Your task to perform on an android device: set an alarm Image 0: 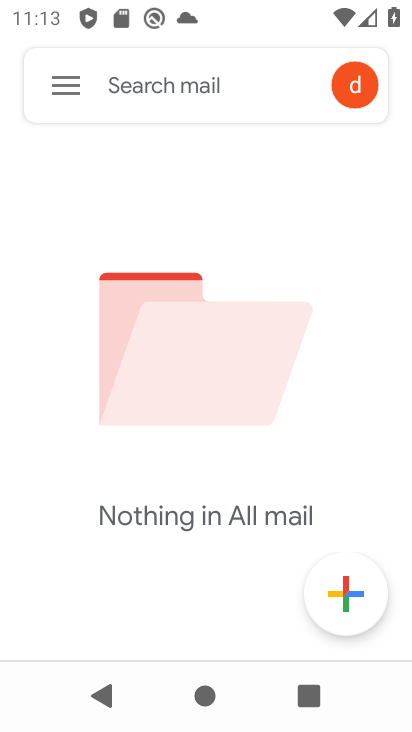
Step 0: press back button
Your task to perform on an android device: set an alarm Image 1: 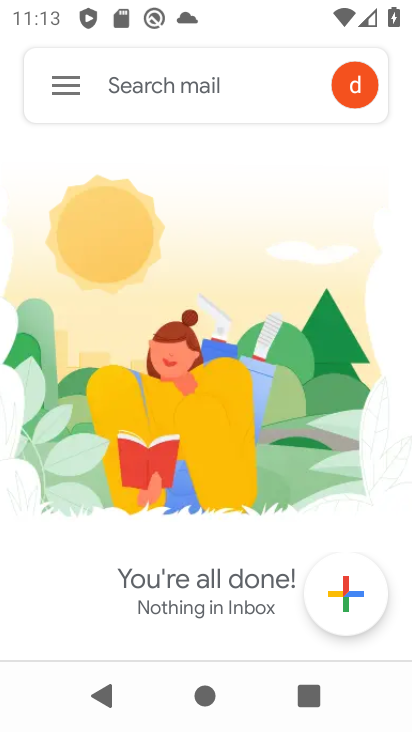
Step 1: press back button
Your task to perform on an android device: set an alarm Image 2: 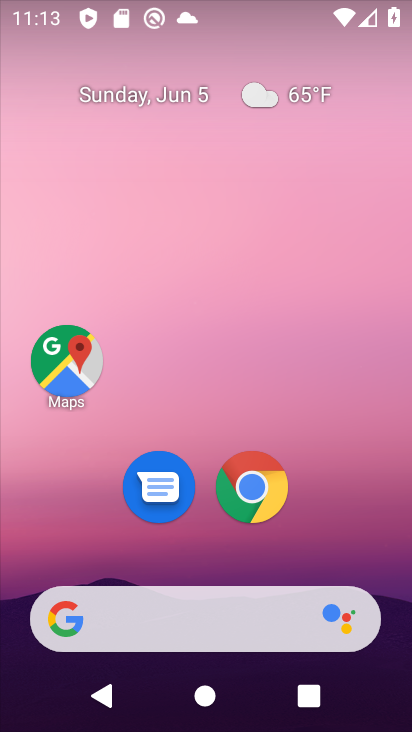
Step 2: drag from (335, 544) to (219, 52)
Your task to perform on an android device: set an alarm Image 3: 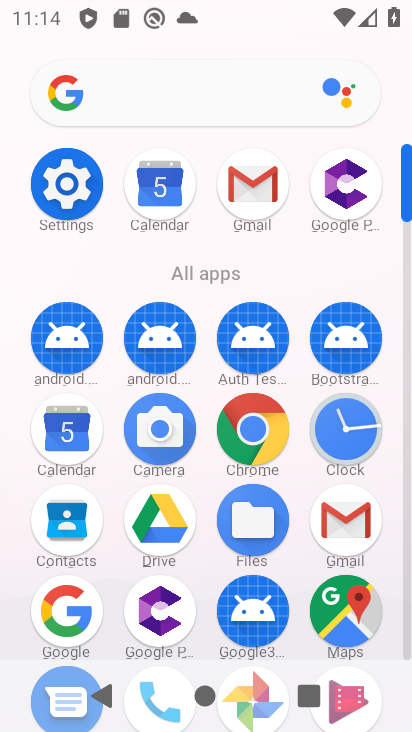
Step 3: click (344, 428)
Your task to perform on an android device: set an alarm Image 4: 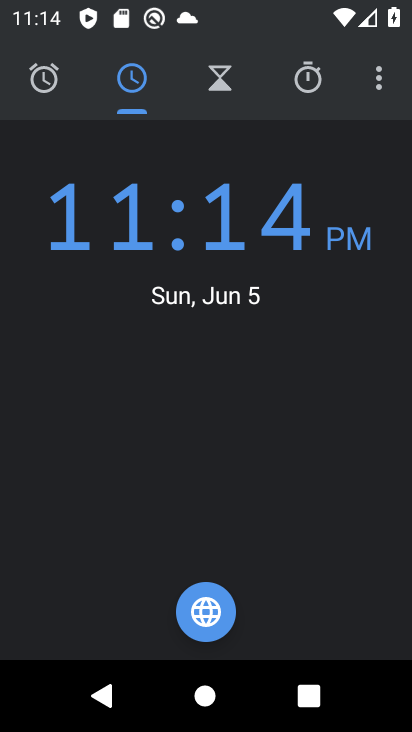
Step 4: click (44, 78)
Your task to perform on an android device: set an alarm Image 5: 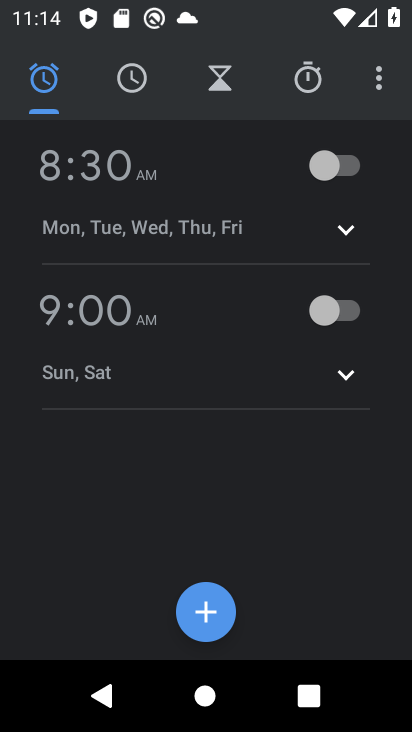
Step 5: click (205, 612)
Your task to perform on an android device: set an alarm Image 6: 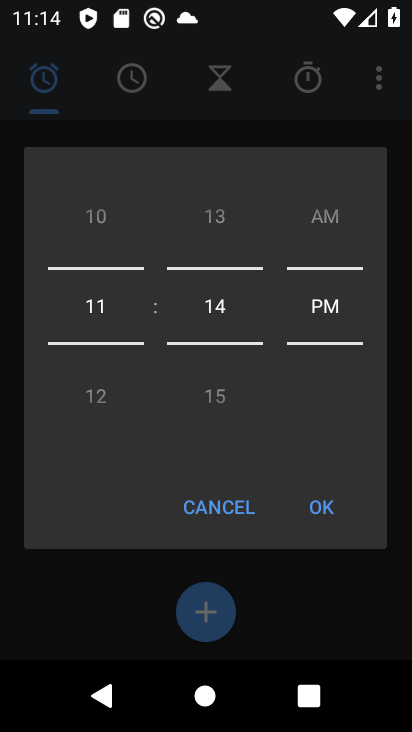
Step 6: click (99, 224)
Your task to perform on an android device: set an alarm Image 7: 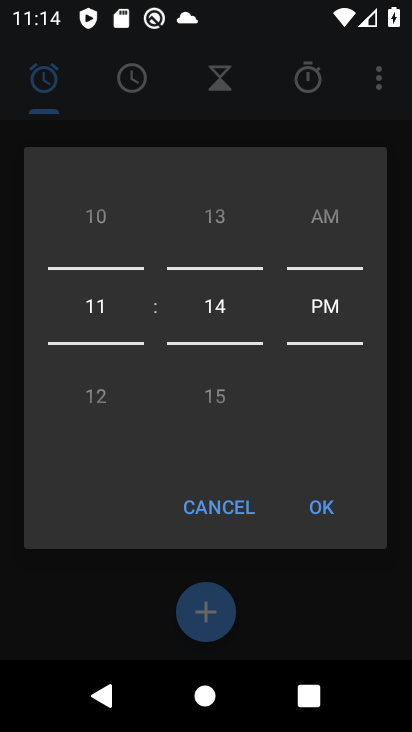
Step 7: click (99, 224)
Your task to perform on an android device: set an alarm Image 8: 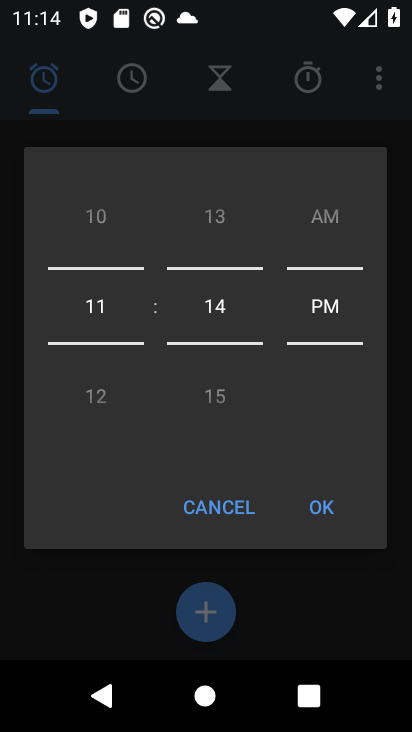
Step 8: click (106, 406)
Your task to perform on an android device: set an alarm Image 9: 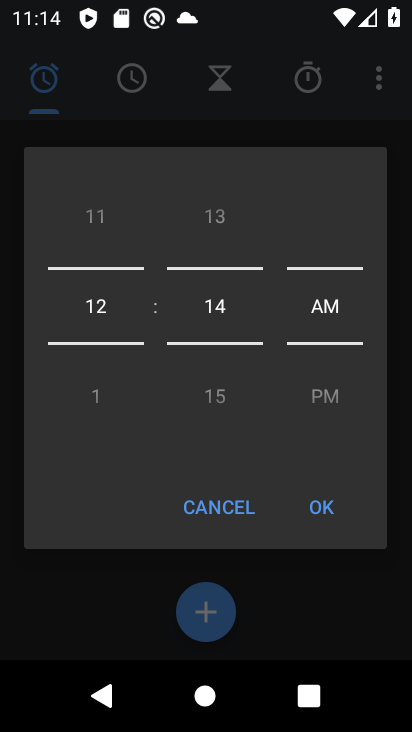
Step 9: drag from (114, 219) to (100, 358)
Your task to perform on an android device: set an alarm Image 10: 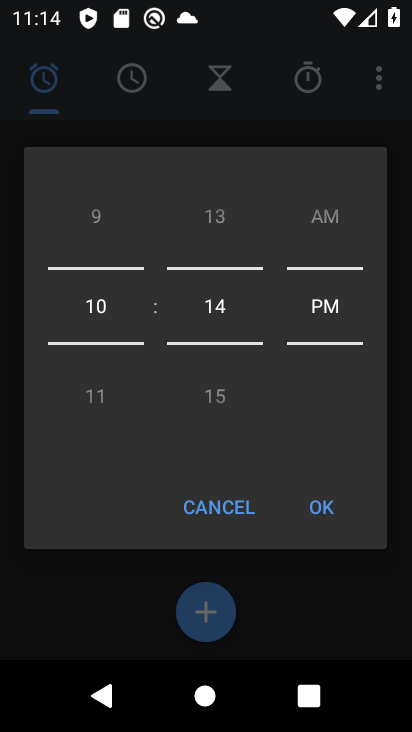
Step 10: drag from (98, 220) to (103, 346)
Your task to perform on an android device: set an alarm Image 11: 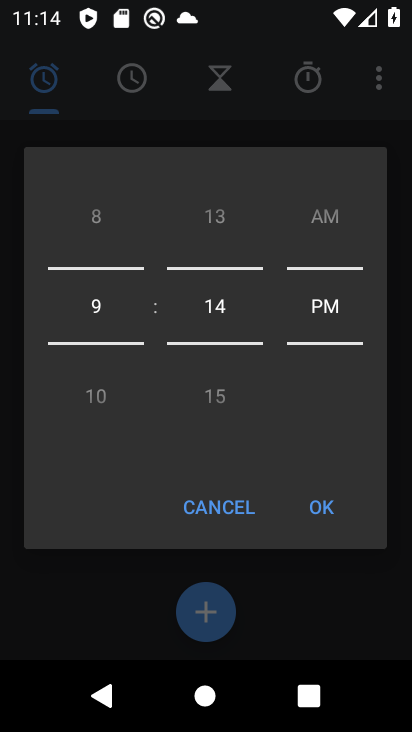
Step 11: drag from (99, 220) to (110, 342)
Your task to perform on an android device: set an alarm Image 12: 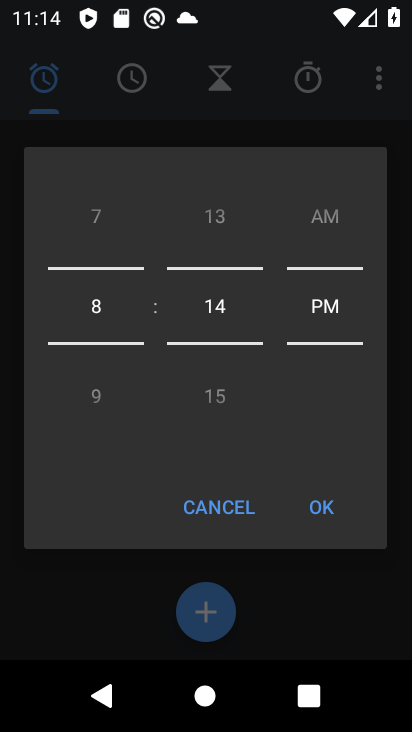
Step 12: drag from (99, 219) to (129, 349)
Your task to perform on an android device: set an alarm Image 13: 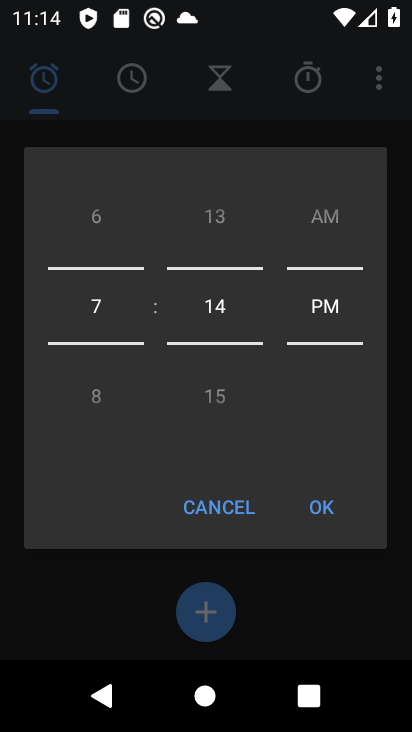
Step 13: drag from (99, 228) to (112, 372)
Your task to perform on an android device: set an alarm Image 14: 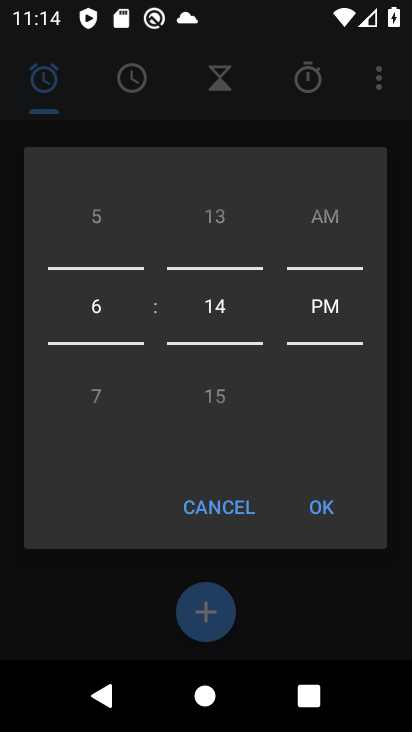
Step 14: drag from (111, 219) to (88, 392)
Your task to perform on an android device: set an alarm Image 15: 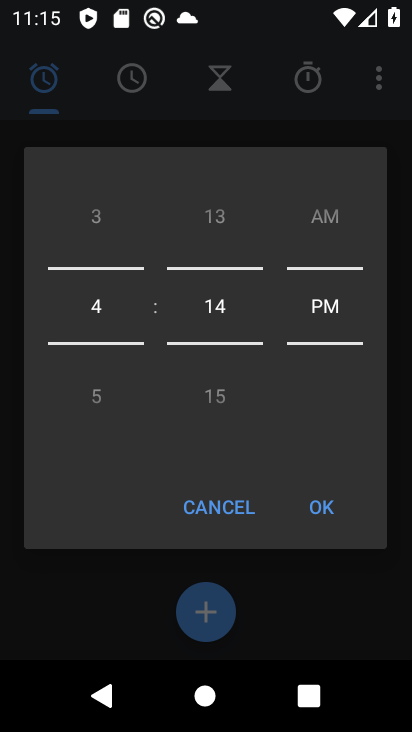
Step 15: drag from (242, 230) to (231, 360)
Your task to perform on an android device: set an alarm Image 16: 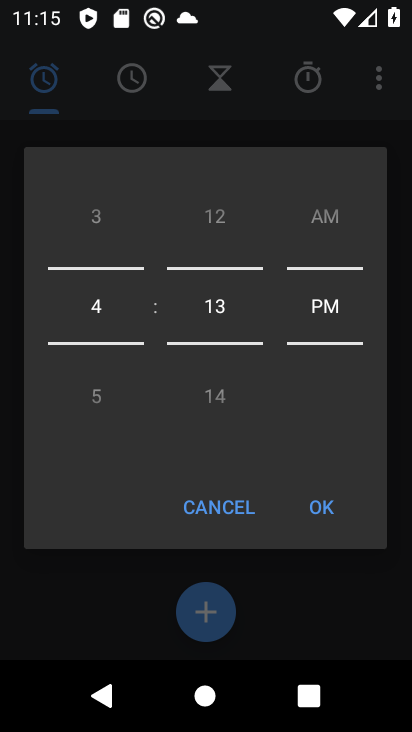
Step 16: drag from (226, 222) to (213, 364)
Your task to perform on an android device: set an alarm Image 17: 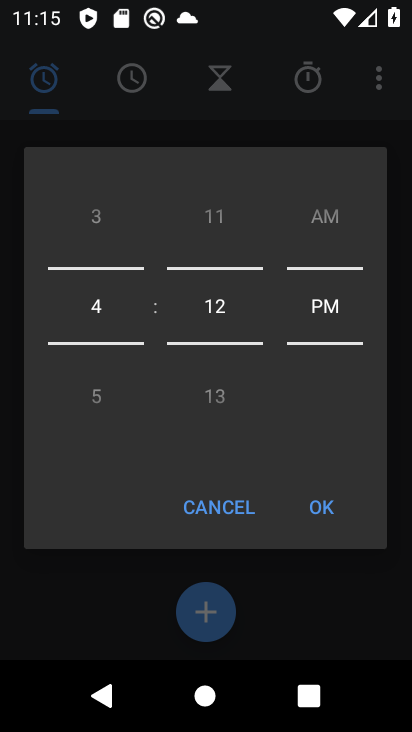
Step 17: drag from (200, 296) to (199, 381)
Your task to perform on an android device: set an alarm Image 18: 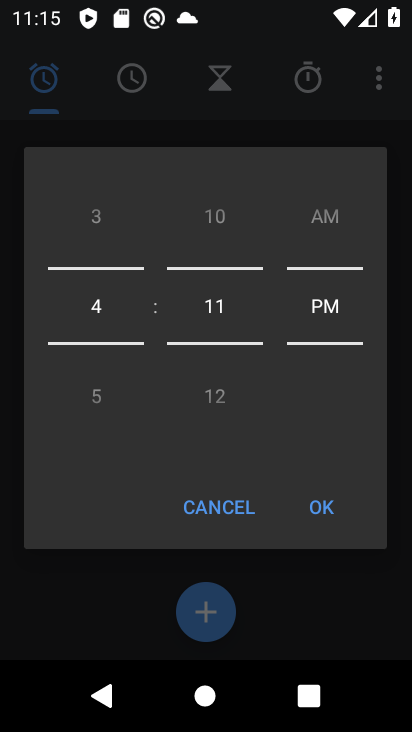
Step 18: drag from (222, 227) to (211, 402)
Your task to perform on an android device: set an alarm Image 19: 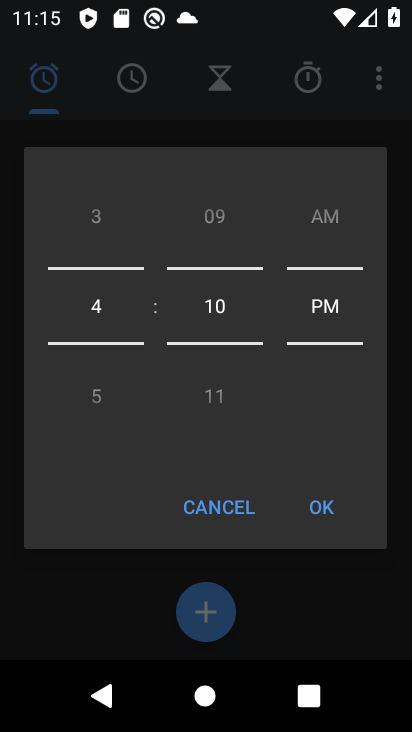
Step 19: drag from (228, 222) to (210, 413)
Your task to perform on an android device: set an alarm Image 20: 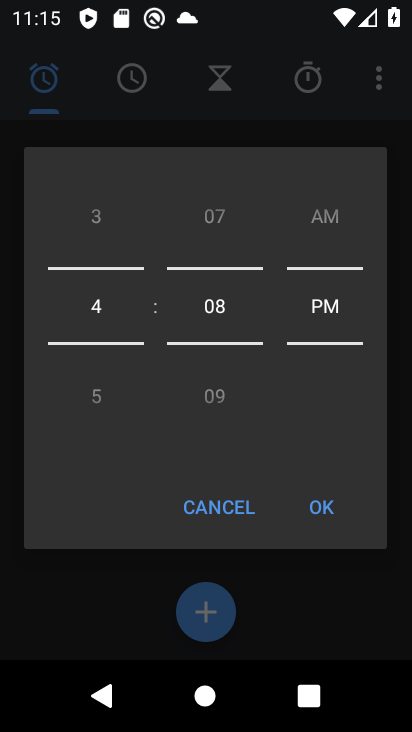
Step 20: drag from (224, 220) to (198, 369)
Your task to perform on an android device: set an alarm Image 21: 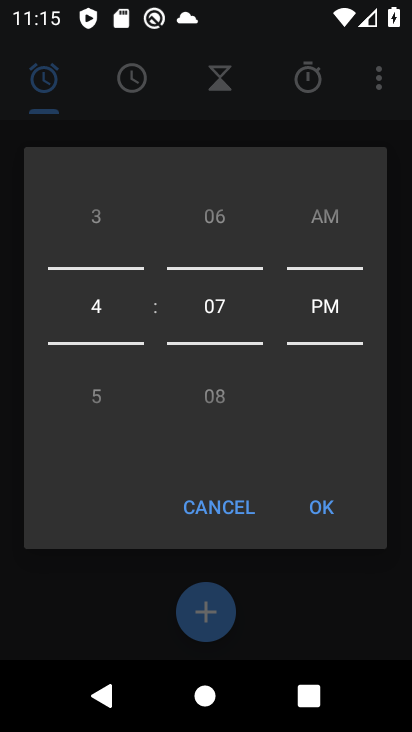
Step 21: drag from (333, 215) to (336, 372)
Your task to perform on an android device: set an alarm Image 22: 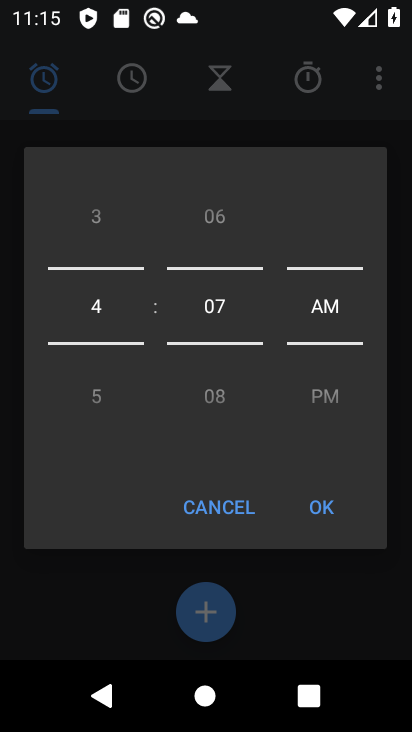
Step 22: click (319, 505)
Your task to perform on an android device: set an alarm Image 23: 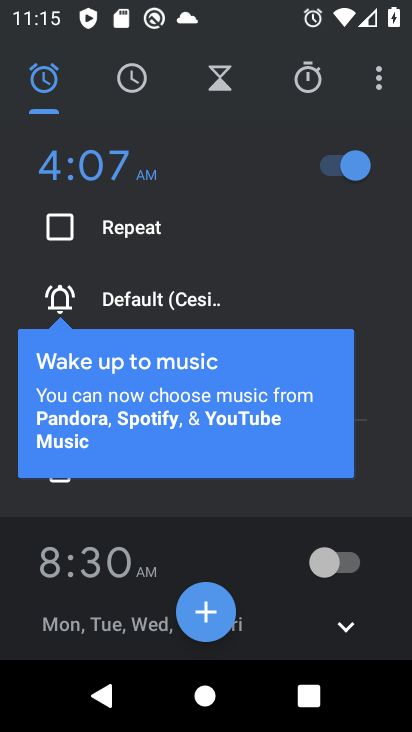
Step 23: click (293, 138)
Your task to perform on an android device: set an alarm Image 24: 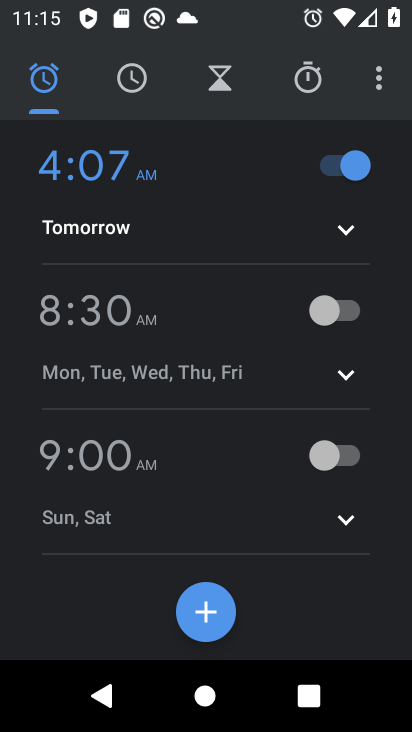
Step 24: task complete